Your task to perform on an android device: turn off notifications settings in the gmail app Image 0: 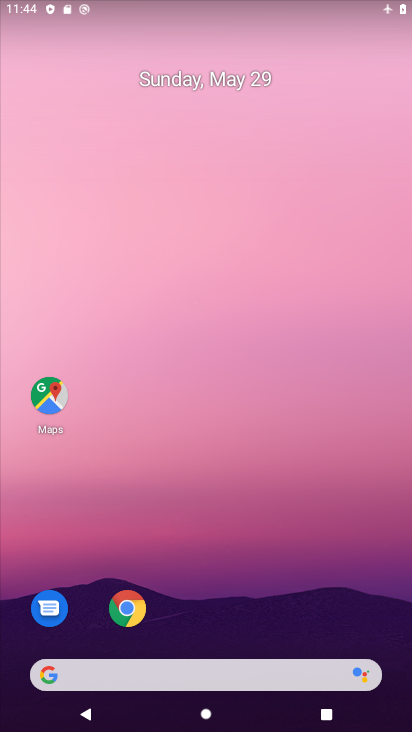
Step 0: drag from (267, 653) to (277, 118)
Your task to perform on an android device: turn off notifications settings in the gmail app Image 1: 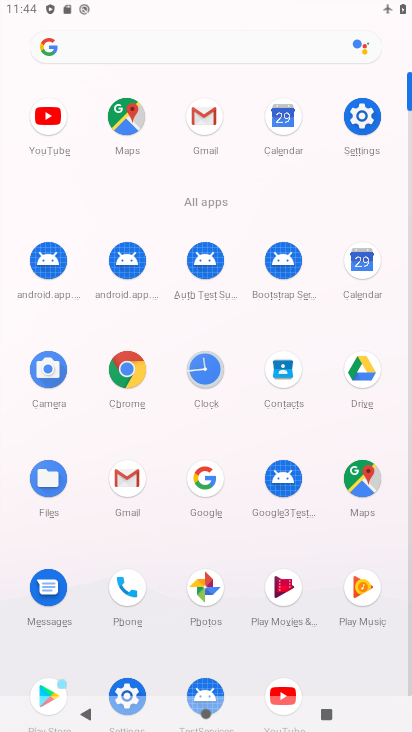
Step 1: click (196, 117)
Your task to perform on an android device: turn off notifications settings in the gmail app Image 2: 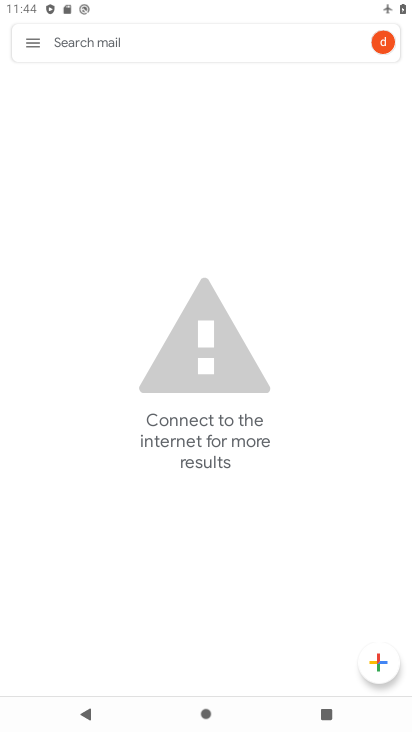
Step 2: click (32, 42)
Your task to perform on an android device: turn off notifications settings in the gmail app Image 3: 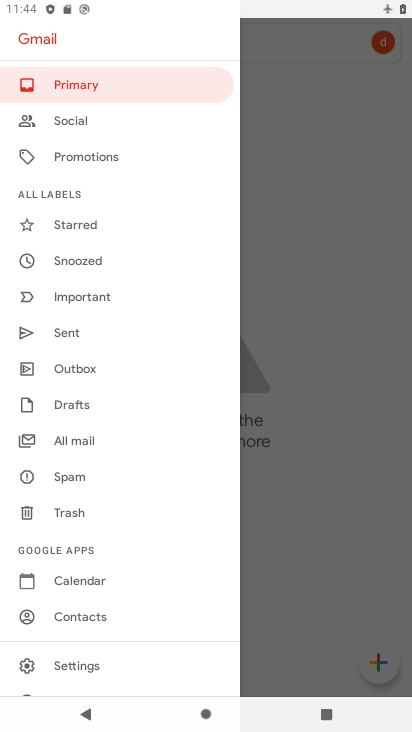
Step 3: click (45, 668)
Your task to perform on an android device: turn off notifications settings in the gmail app Image 4: 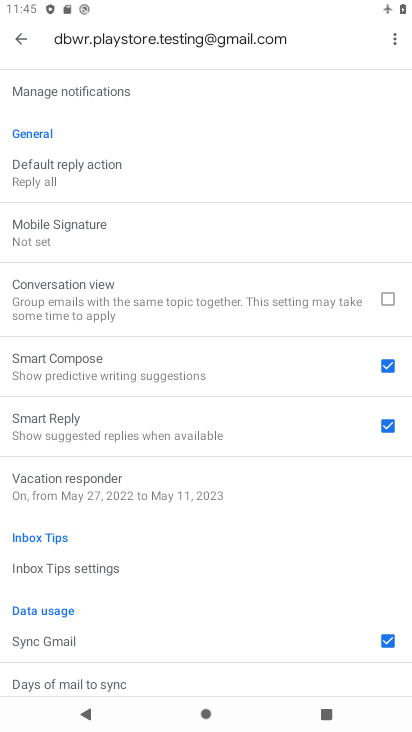
Step 4: click (17, 42)
Your task to perform on an android device: turn off notifications settings in the gmail app Image 5: 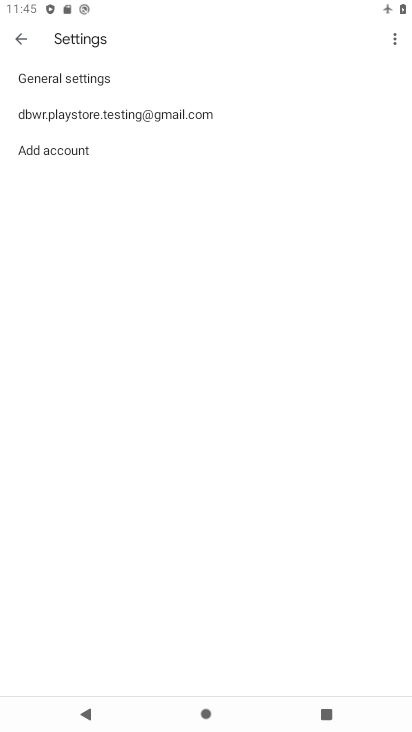
Step 5: click (50, 72)
Your task to perform on an android device: turn off notifications settings in the gmail app Image 6: 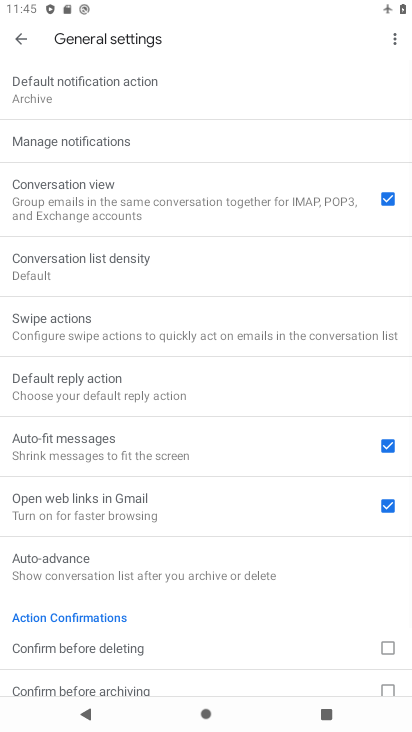
Step 6: click (48, 130)
Your task to perform on an android device: turn off notifications settings in the gmail app Image 7: 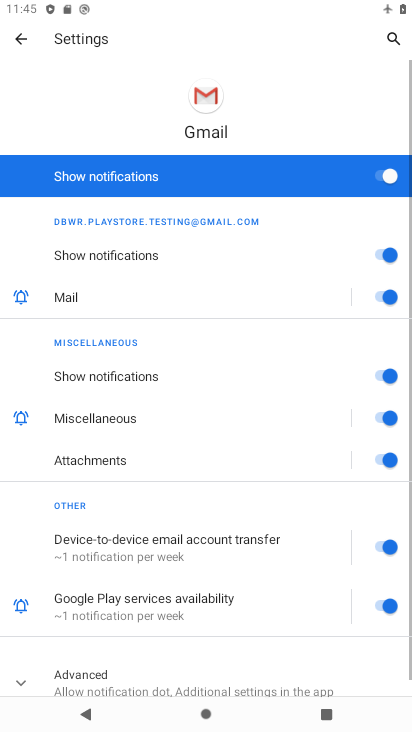
Step 7: click (404, 164)
Your task to perform on an android device: turn off notifications settings in the gmail app Image 8: 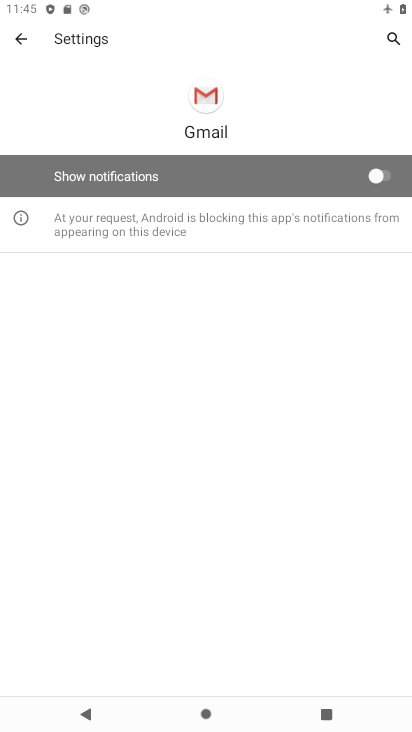
Step 8: task complete